Your task to perform on an android device: toggle sleep mode Image 0: 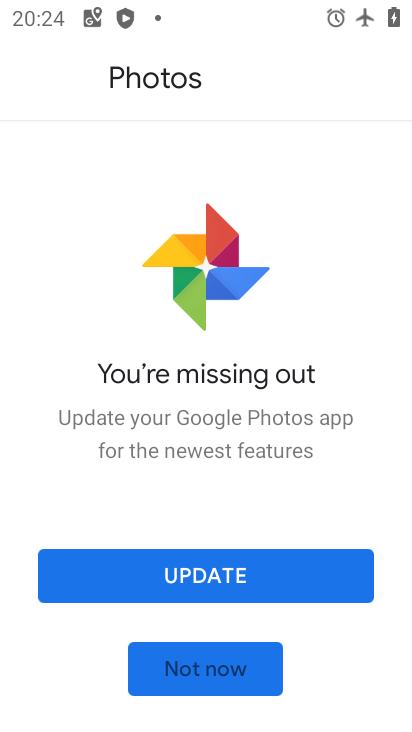
Step 0: press home button
Your task to perform on an android device: toggle sleep mode Image 1: 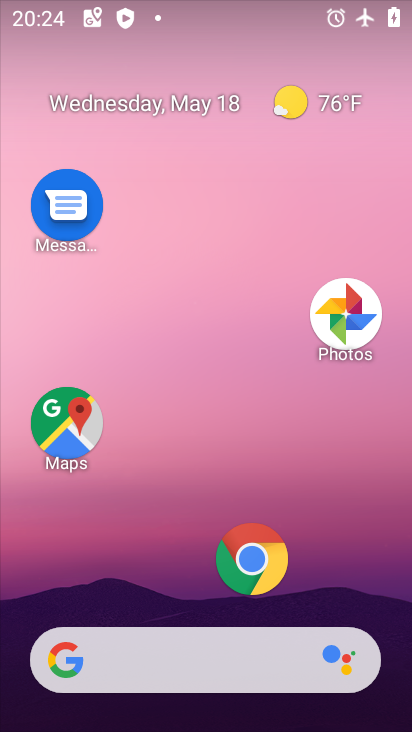
Step 1: drag from (261, 616) to (225, 35)
Your task to perform on an android device: toggle sleep mode Image 2: 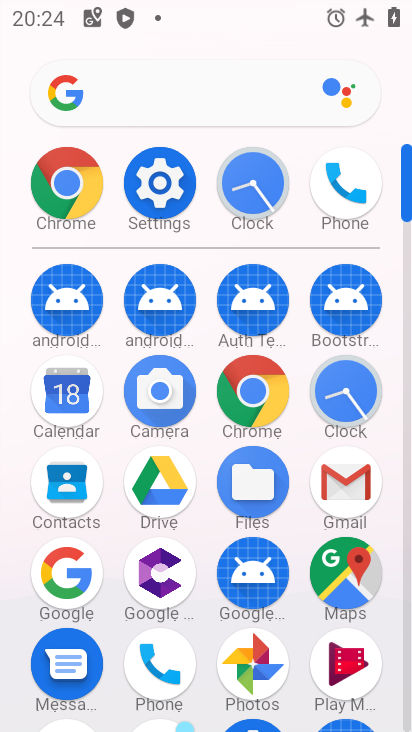
Step 2: click (169, 189)
Your task to perform on an android device: toggle sleep mode Image 3: 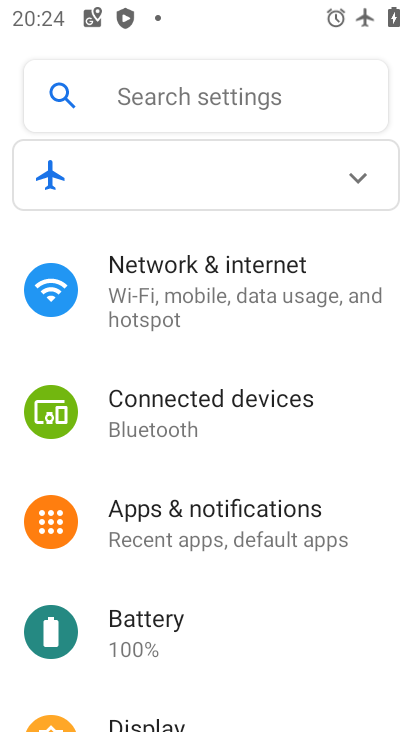
Step 3: drag from (259, 640) to (210, 284)
Your task to perform on an android device: toggle sleep mode Image 4: 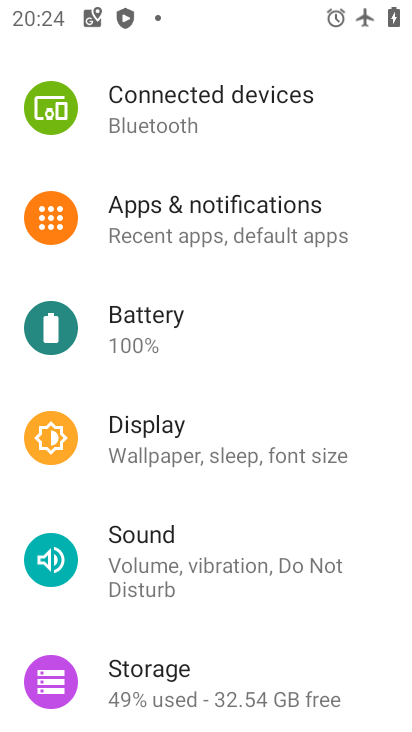
Step 4: click (198, 436)
Your task to perform on an android device: toggle sleep mode Image 5: 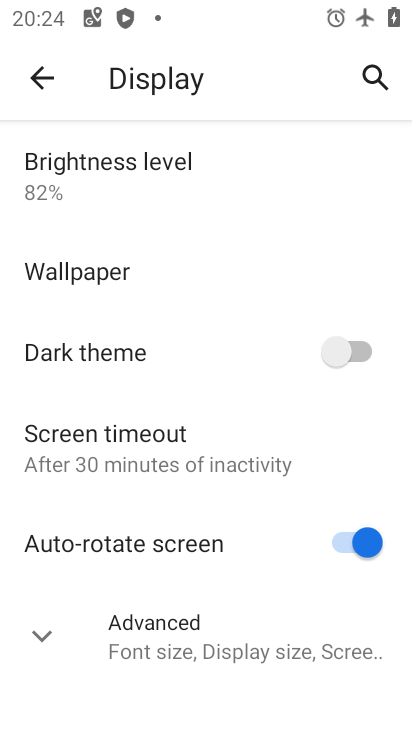
Step 5: task complete